Your task to perform on an android device: Do I have any events this weekend? Image 0: 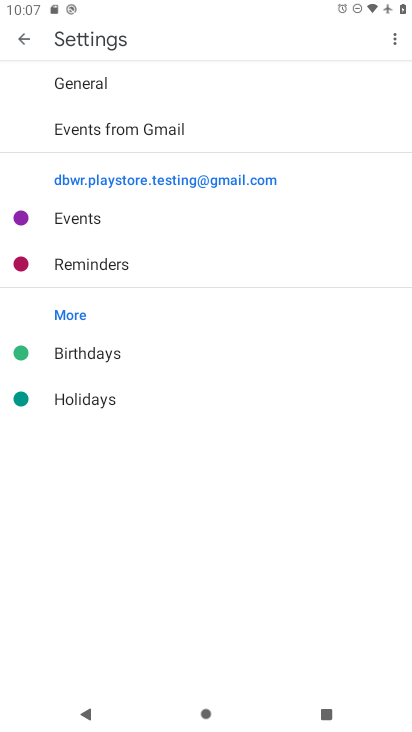
Step 0: press home button
Your task to perform on an android device: Do I have any events this weekend? Image 1: 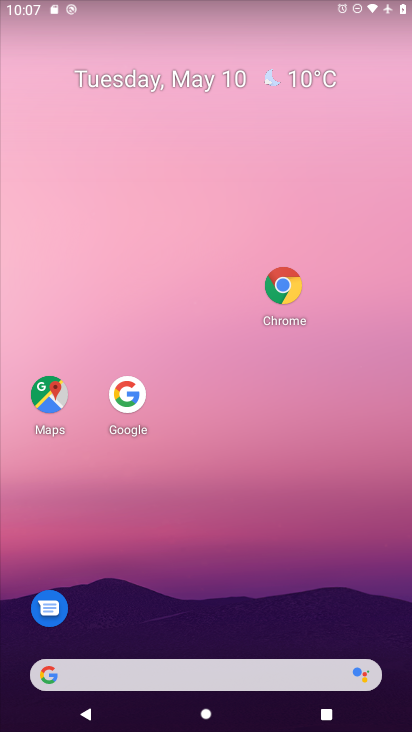
Step 1: drag from (206, 668) to (321, 218)
Your task to perform on an android device: Do I have any events this weekend? Image 2: 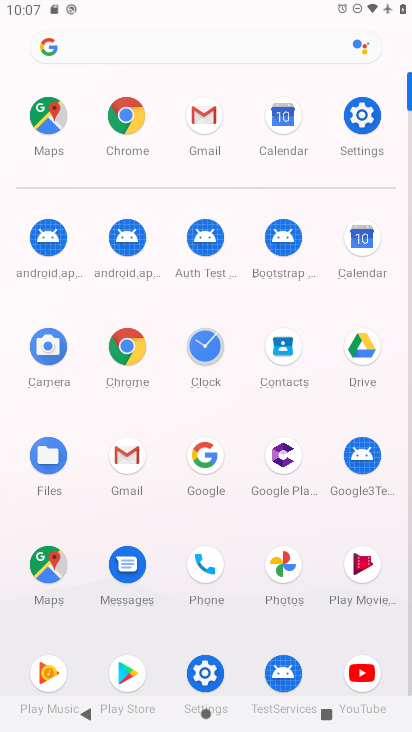
Step 2: click (355, 252)
Your task to perform on an android device: Do I have any events this weekend? Image 3: 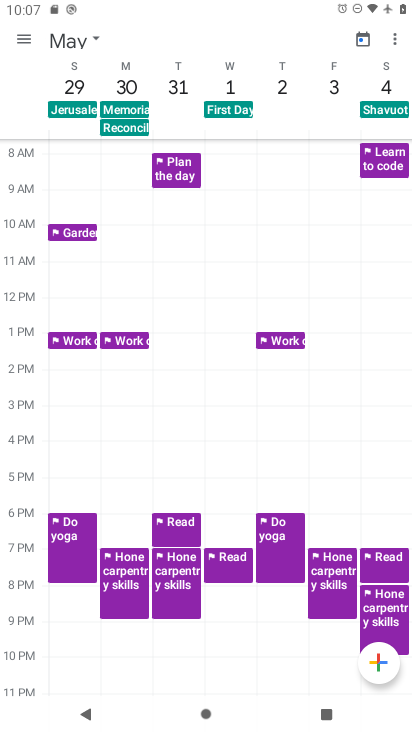
Step 3: click (71, 39)
Your task to perform on an android device: Do I have any events this weekend? Image 4: 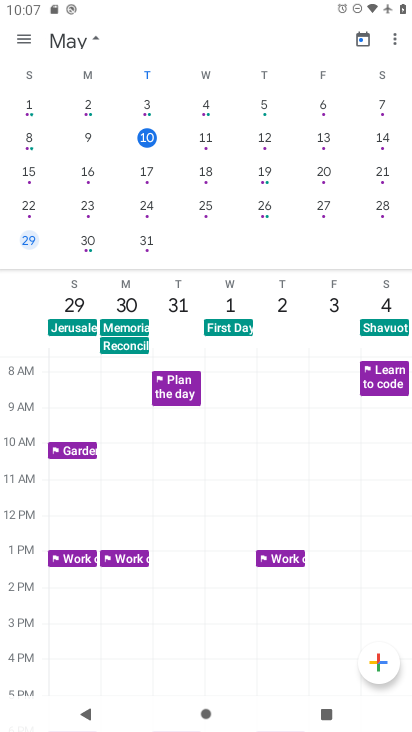
Step 4: click (379, 141)
Your task to perform on an android device: Do I have any events this weekend? Image 5: 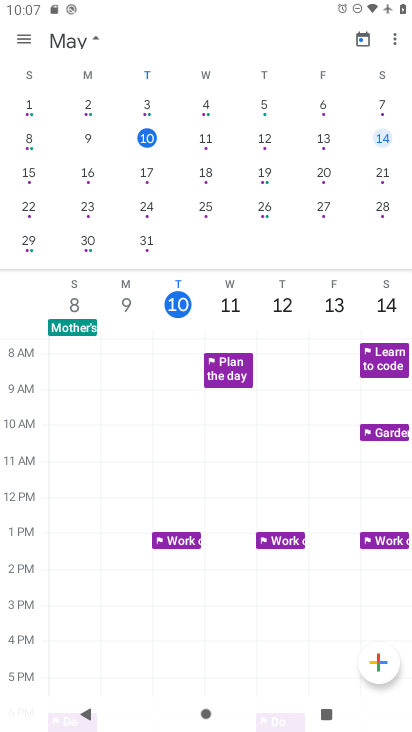
Step 5: click (25, 44)
Your task to perform on an android device: Do I have any events this weekend? Image 6: 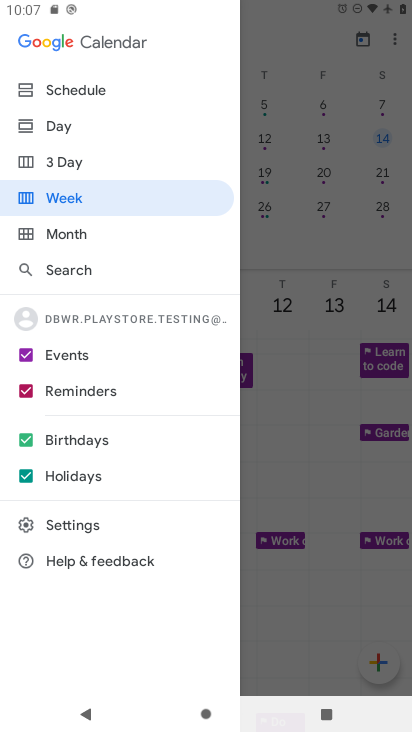
Step 6: click (50, 129)
Your task to perform on an android device: Do I have any events this weekend? Image 7: 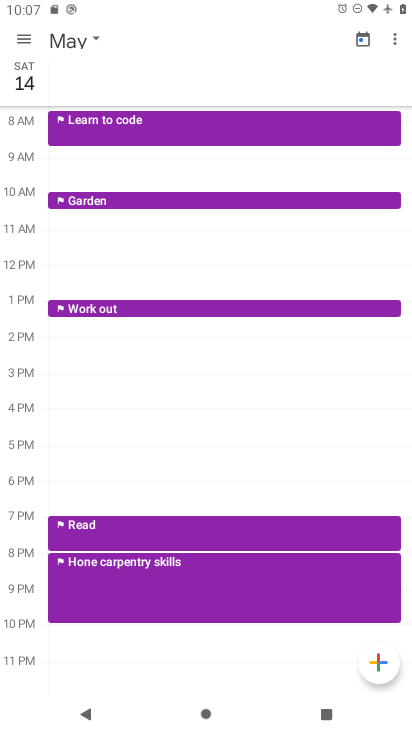
Step 7: click (25, 40)
Your task to perform on an android device: Do I have any events this weekend? Image 8: 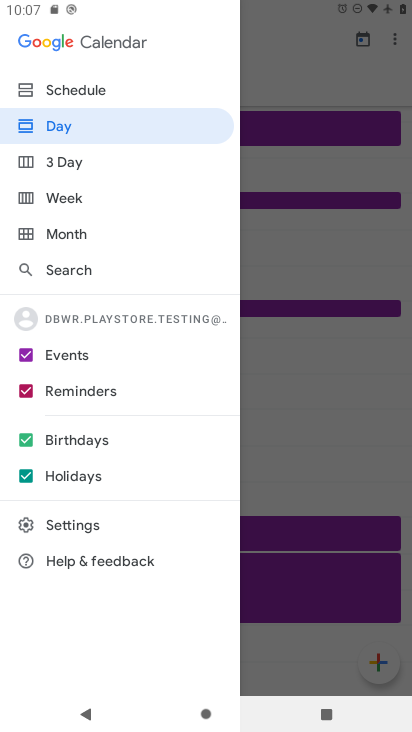
Step 8: click (52, 91)
Your task to perform on an android device: Do I have any events this weekend? Image 9: 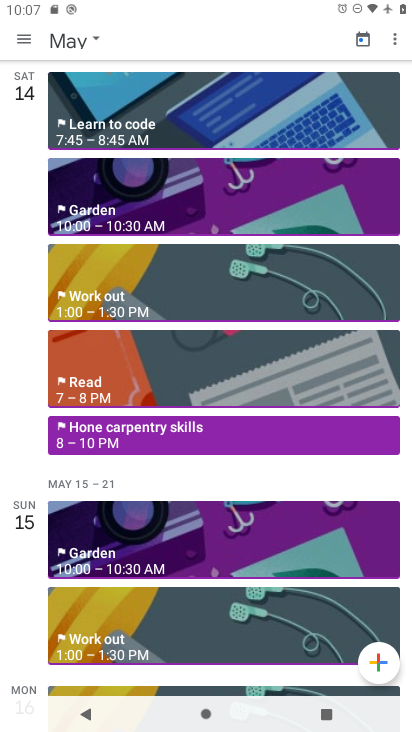
Step 9: click (155, 204)
Your task to perform on an android device: Do I have any events this weekend? Image 10: 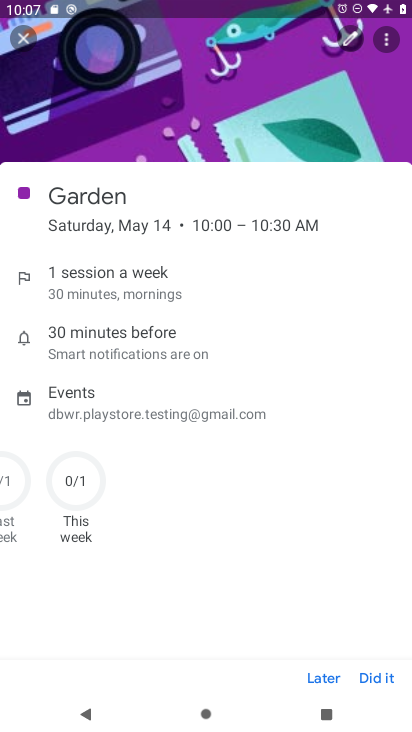
Step 10: task complete